Your task to perform on an android device: move an email to a new category in the gmail app Image 0: 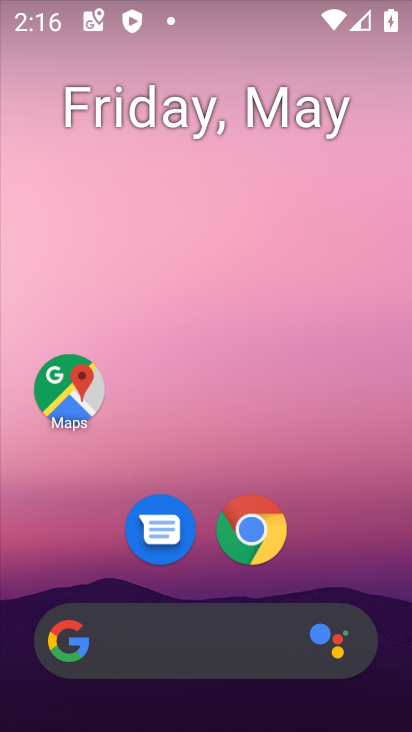
Step 0: drag from (371, 565) to (200, 32)
Your task to perform on an android device: move an email to a new category in the gmail app Image 1: 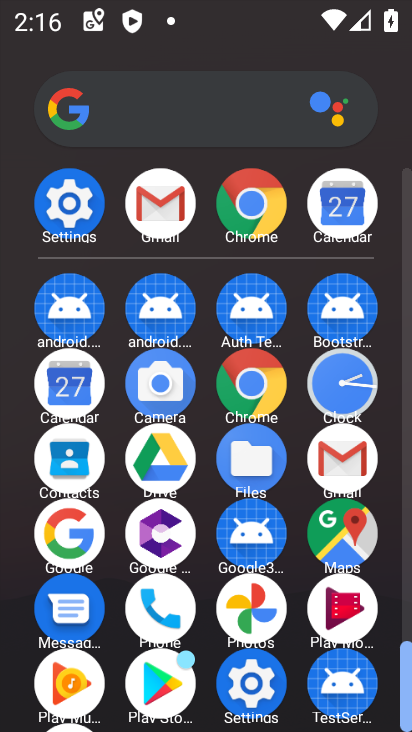
Step 1: click (154, 221)
Your task to perform on an android device: move an email to a new category in the gmail app Image 2: 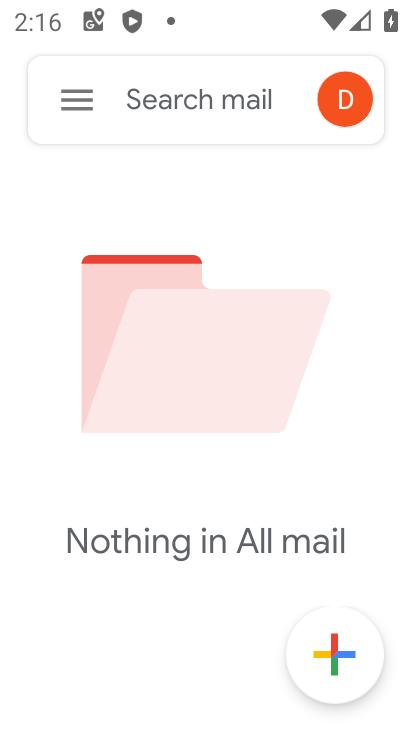
Step 2: task complete